Your task to perform on an android device: check the backup settings in the google photos Image 0: 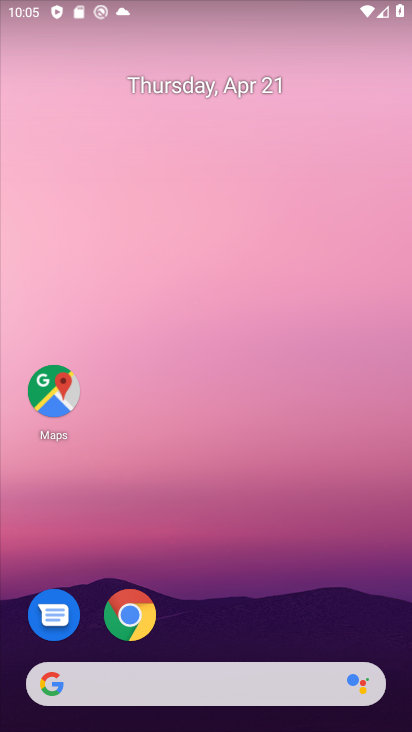
Step 0: drag from (225, 637) to (225, 74)
Your task to perform on an android device: check the backup settings in the google photos Image 1: 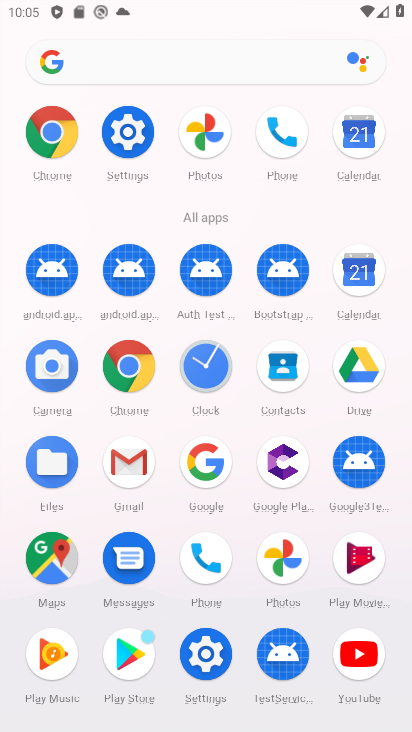
Step 1: click (285, 546)
Your task to perform on an android device: check the backup settings in the google photos Image 2: 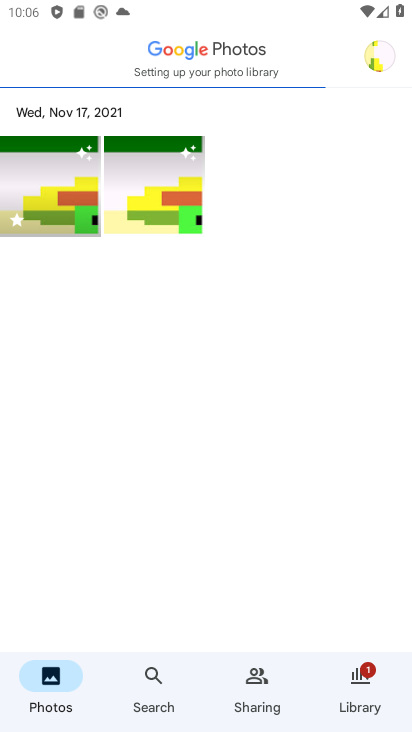
Step 2: click (371, 55)
Your task to perform on an android device: check the backup settings in the google photos Image 3: 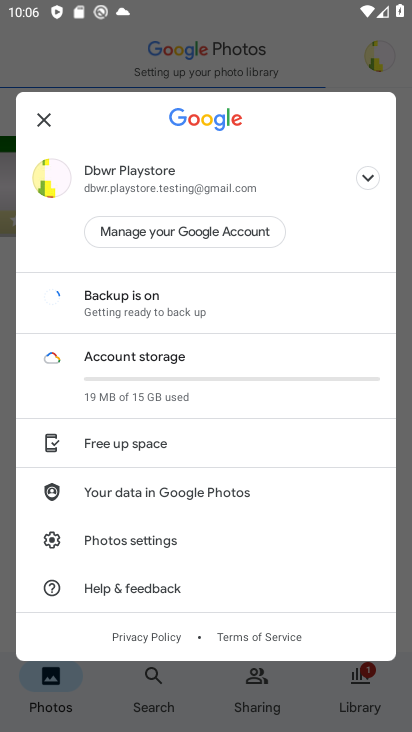
Step 3: click (163, 297)
Your task to perform on an android device: check the backup settings in the google photos Image 4: 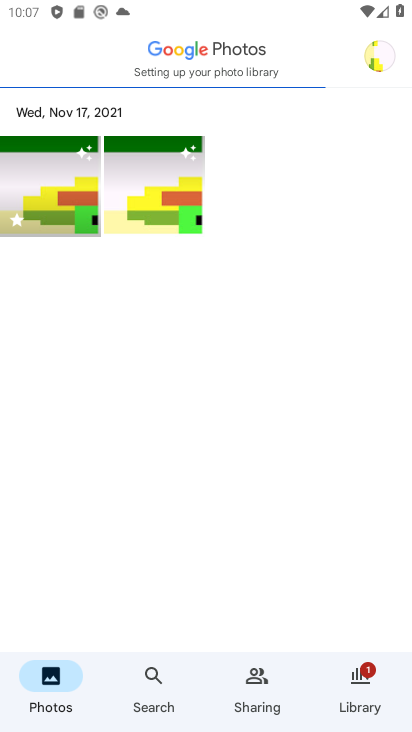
Step 4: click (375, 56)
Your task to perform on an android device: check the backup settings in the google photos Image 5: 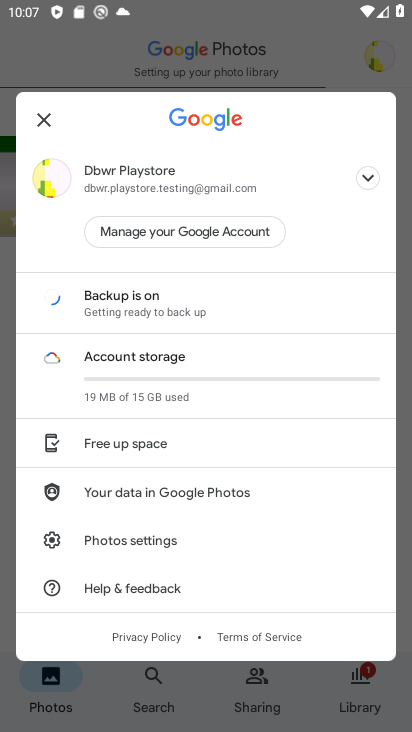
Step 5: click (166, 292)
Your task to perform on an android device: check the backup settings in the google photos Image 6: 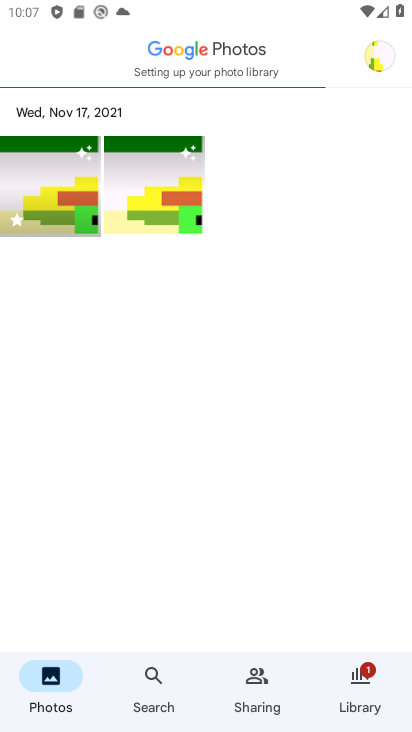
Step 6: click (379, 53)
Your task to perform on an android device: check the backup settings in the google photos Image 7: 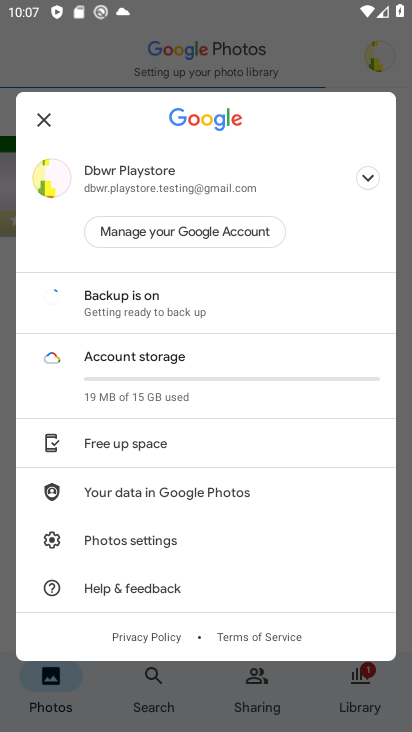
Step 7: click (179, 538)
Your task to perform on an android device: check the backup settings in the google photos Image 8: 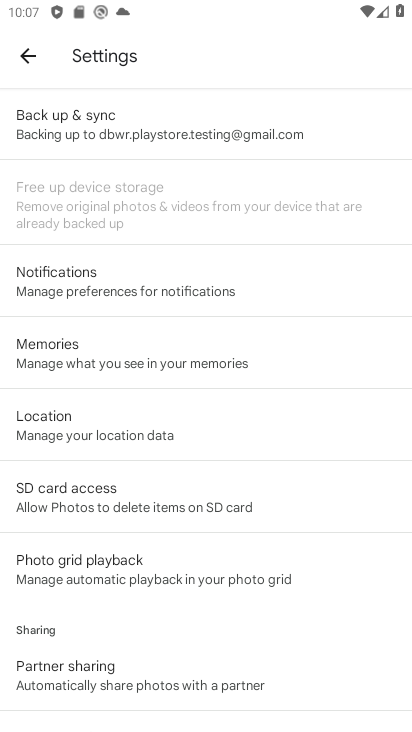
Step 8: click (131, 114)
Your task to perform on an android device: check the backup settings in the google photos Image 9: 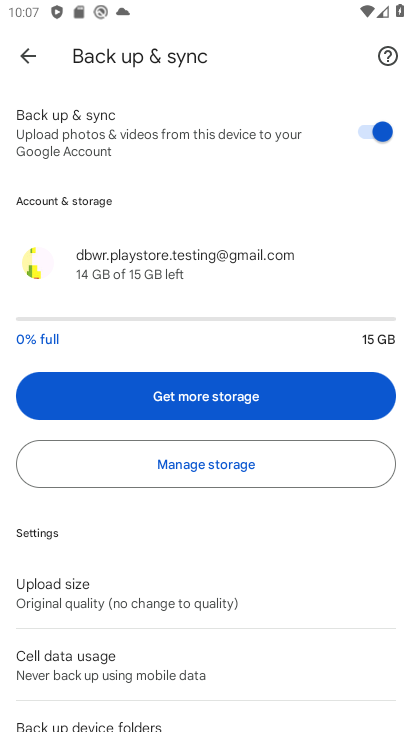
Step 9: task complete